Your task to perform on an android device: Toggle the flashlight Image 0: 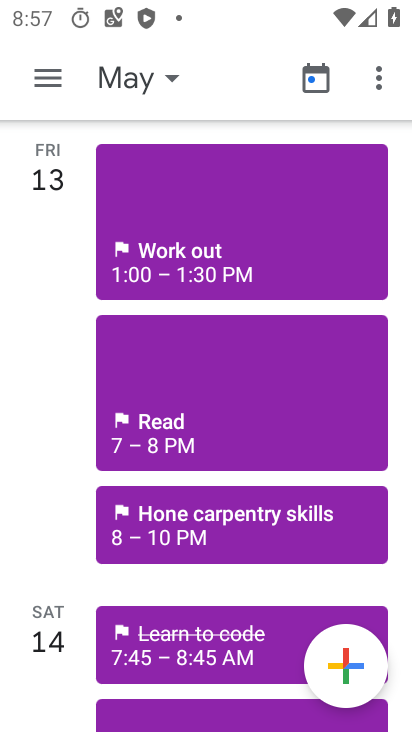
Step 0: press back button
Your task to perform on an android device: Toggle the flashlight Image 1: 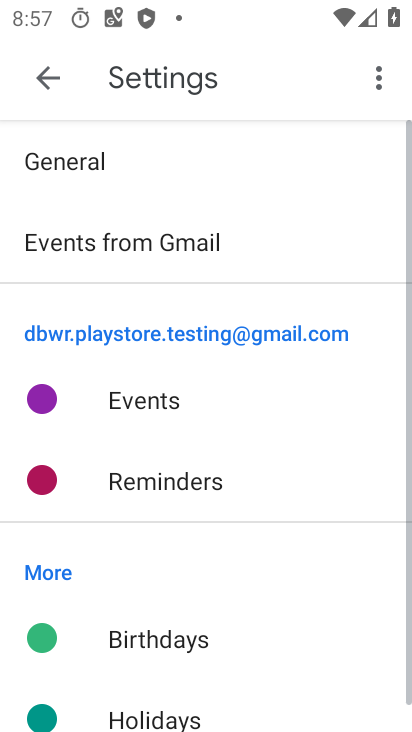
Step 1: press back button
Your task to perform on an android device: Toggle the flashlight Image 2: 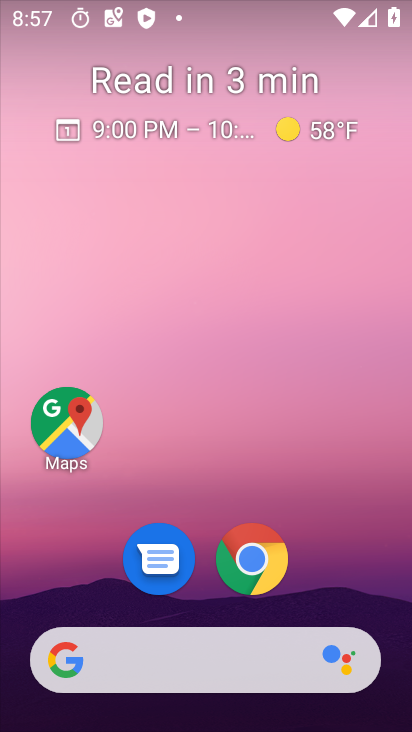
Step 2: drag from (337, 561) to (248, 102)
Your task to perform on an android device: Toggle the flashlight Image 3: 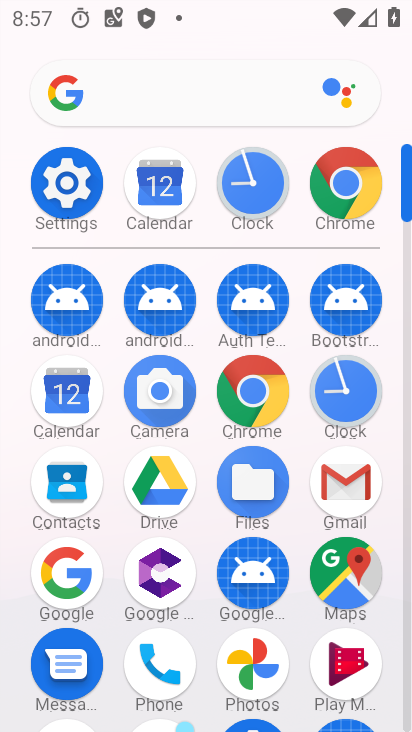
Step 3: click (70, 182)
Your task to perform on an android device: Toggle the flashlight Image 4: 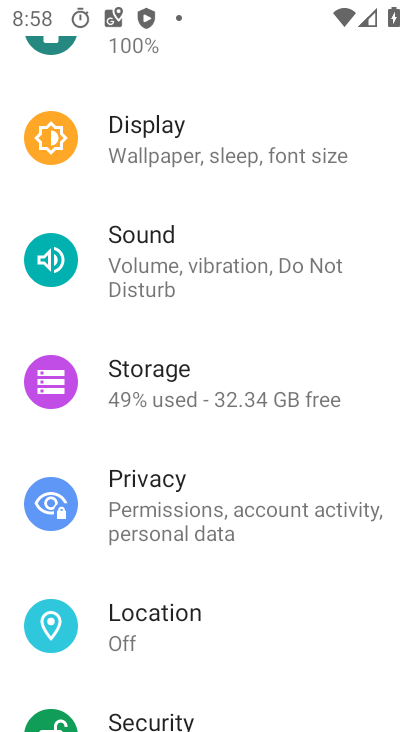
Step 4: drag from (179, 433) to (232, 281)
Your task to perform on an android device: Toggle the flashlight Image 5: 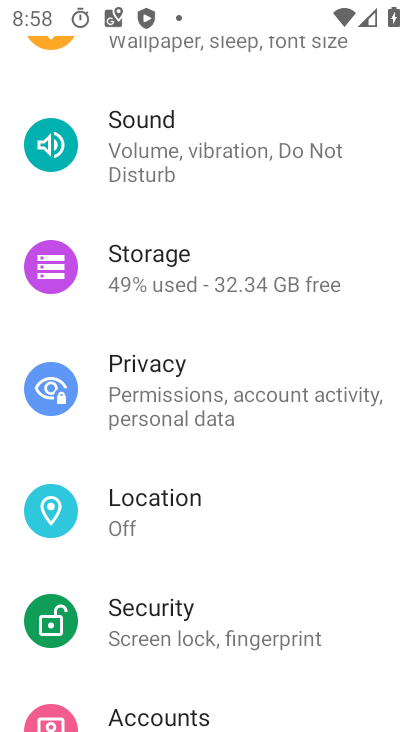
Step 5: drag from (231, 224) to (229, 332)
Your task to perform on an android device: Toggle the flashlight Image 6: 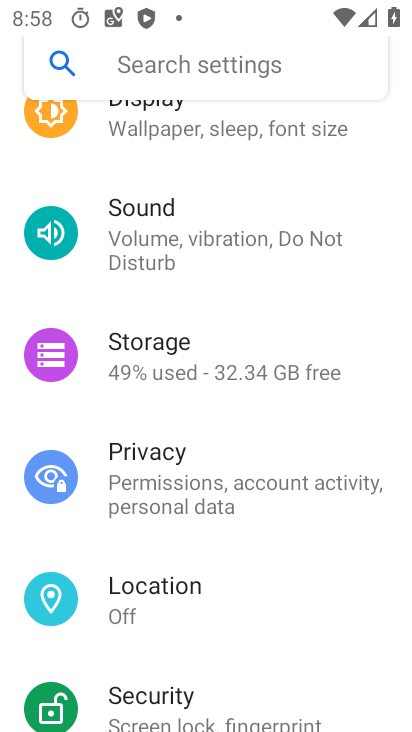
Step 6: drag from (177, 575) to (199, 508)
Your task to perform on an android device: Toggle the flashlight Image 7: 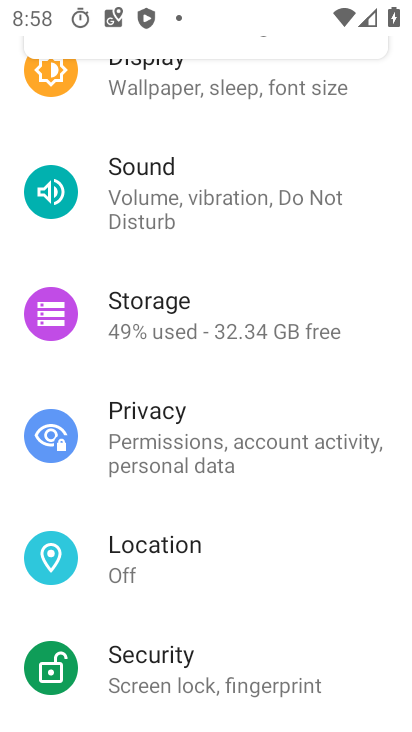
Step 7: drag from (232, 318) to (279, 478)
Your task to perform on an android device: Toggle the flashlight Image 8: 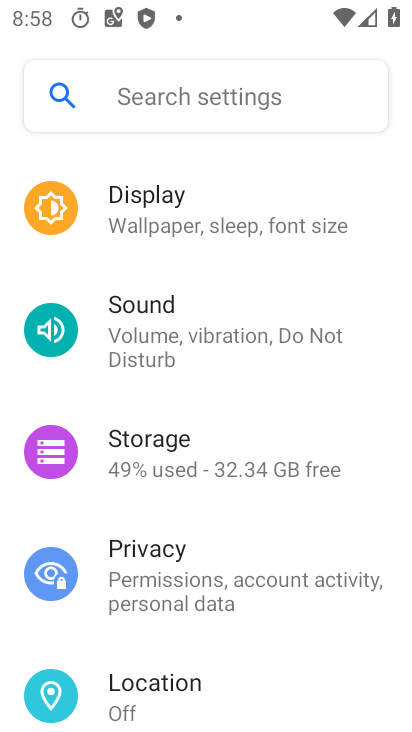
Step 8: click (238, 226)
Your task to perform on an android device: Toggle the flashlight Image 9: 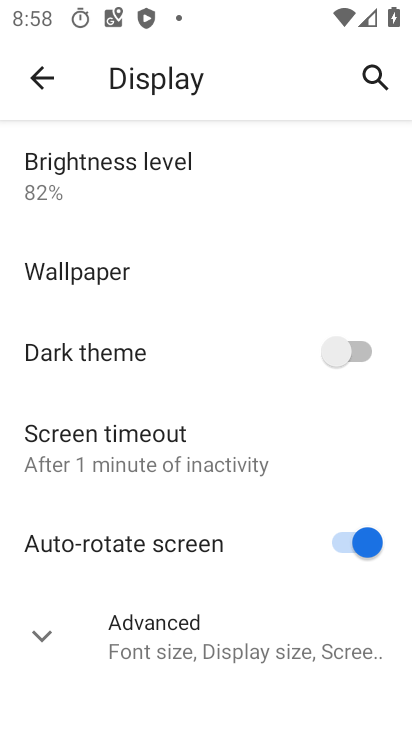
Step 9: drag from (199, 573) to (229, 413)
Your task to perform on an android device: Toggle the flashlight Image 10: 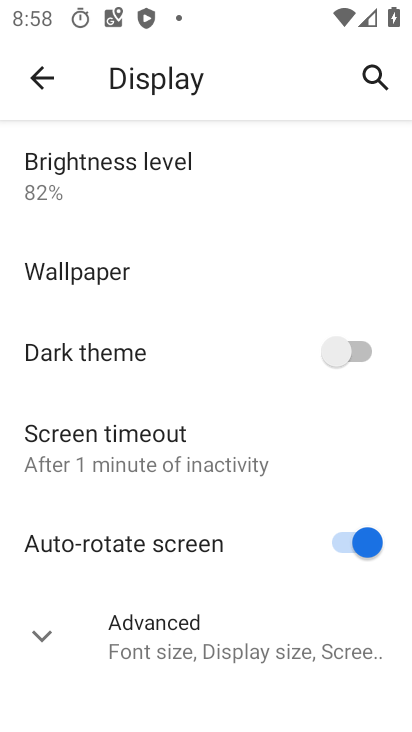
Step 10: click (269, 645)
Your task to perform on an android device: Toggle the flashlight Image 11: 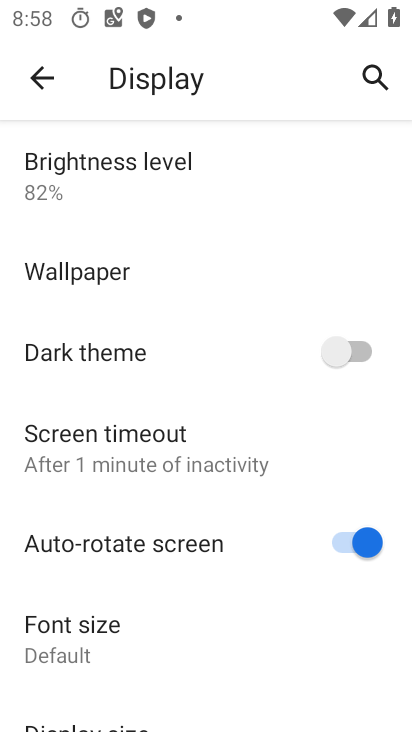
Step 11: task complete